Your task to perform on an android device: toggle translation in the chrome app Image 0: 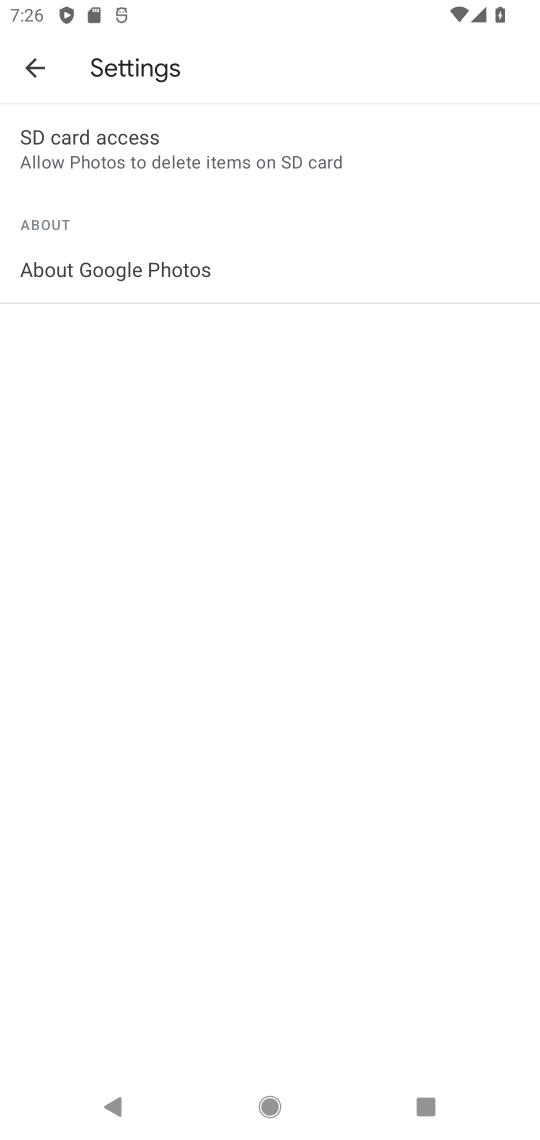
Step 0: press home button
Your task to perform on an android device: toggle translation in the chrome app Image 1: 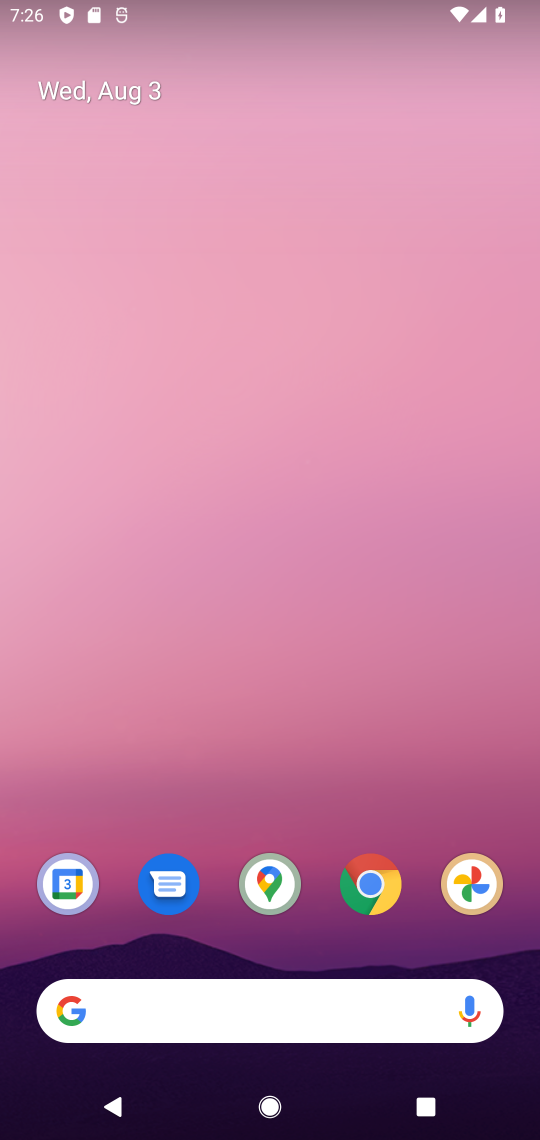
Step 1: click (369, 888)
Your task to perform on an android device: toggle translation in the chrome app Image 2: 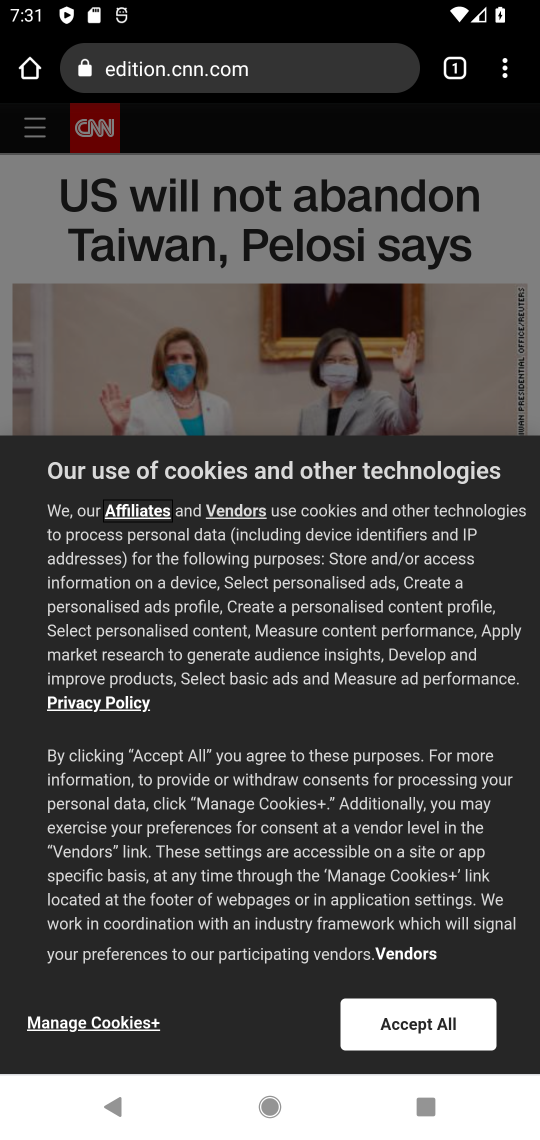
Step 2: press home button
Your task to perform on an android device: toggle translation in the chrome app Image 3: 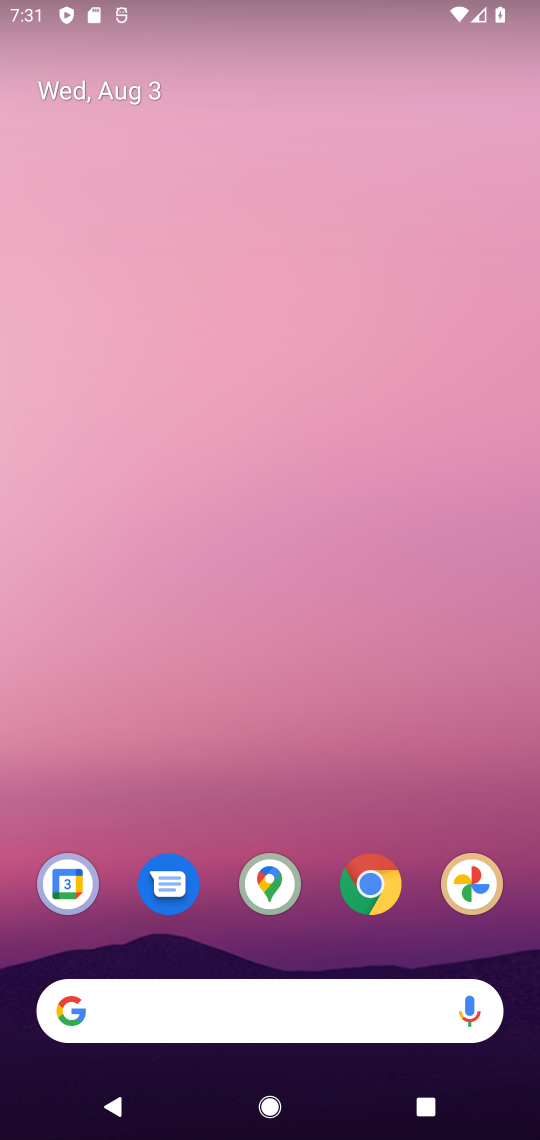
Step 3: click (364, 894)
Your task to perform on an android device: toggle translation in the chrome app Image 4: 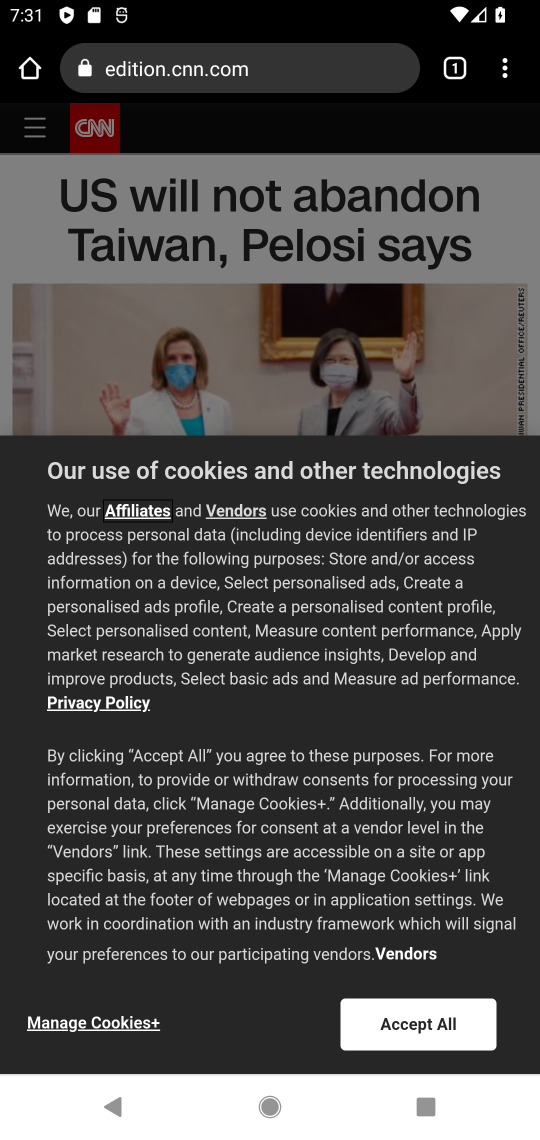
Step 4: task complete